Your task to perform on an android device: Go to Wikipedia Image 0: 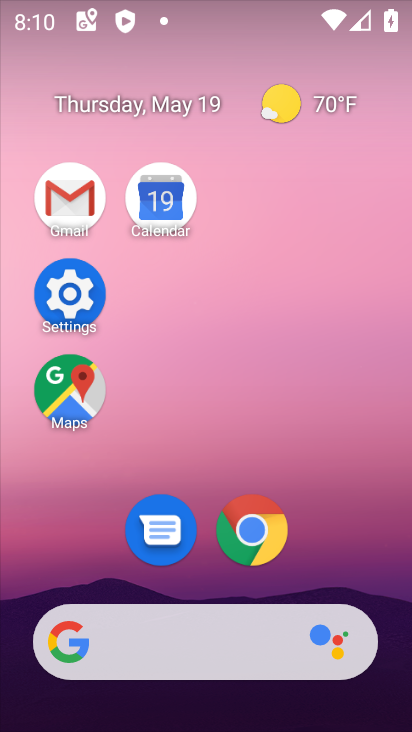
Step 0: drag from (73, 194) to (156, 276)
Your task to perform on an android device: Go to Wikipedia Image 1: 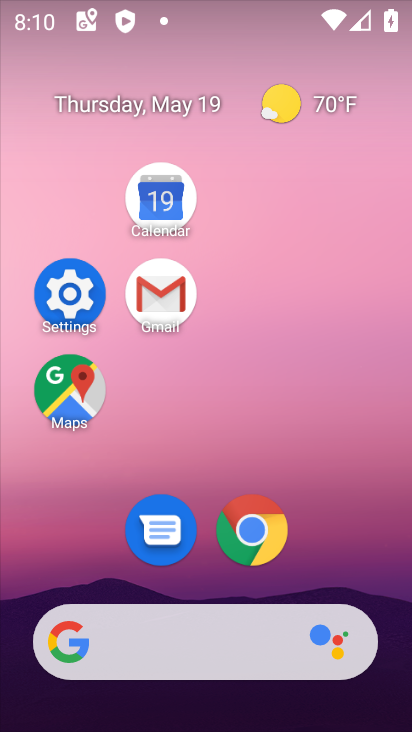
Step 1: drag from (80, 297) to (90, 199)
Your task to perform on an android device: Go to Wikipedia Image 2: 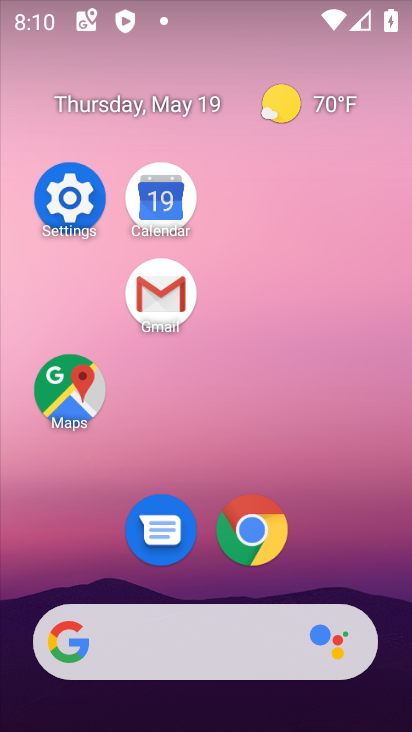
Step 2: drag from (165, 295) to (85, 294)
Your task to perform on an android device: Go to Wikipedia Image 3: 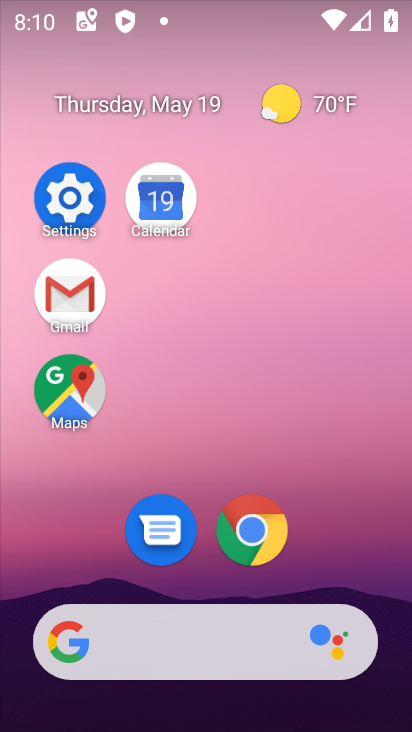
Step 3: click (266, 541)
Your task to perform on an android device: Go to Wikipedia Image 4: 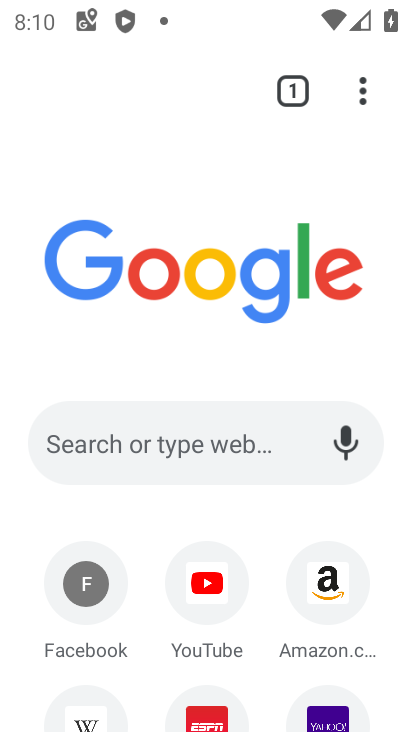
Step 4: click (81, 701)
Your task to perform on an android device: Go to Wikipedia Image 5: 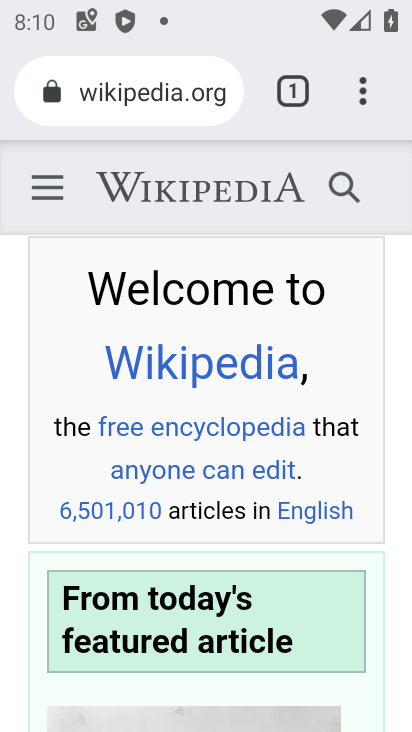
Step 5: task complete